Your task to perform on an android device: change the clock display to digital Image 0: 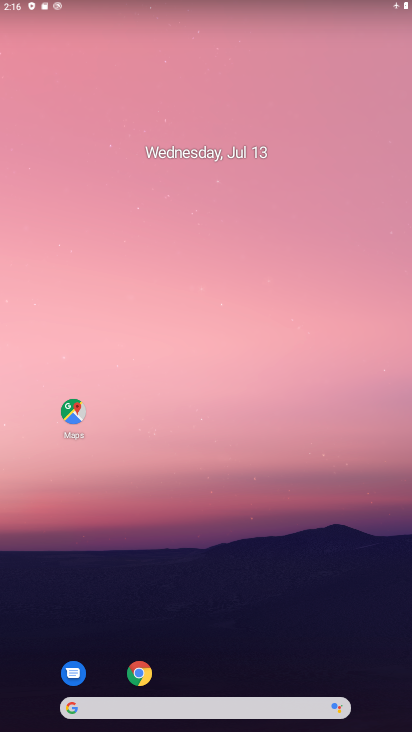
Step 0: drag from (193, 702) to (246, 187)
Your task to perform on an android device: change the clock display to digital Image 1: 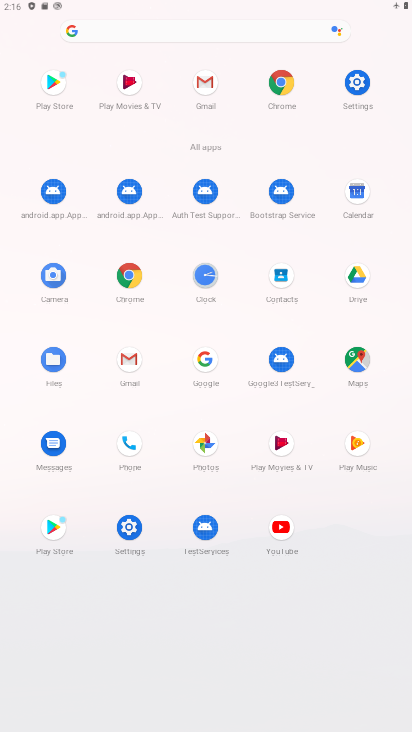
Step 1: click (204, 277)
Your task to perform on an android device: change the clock display to digital Image 2: 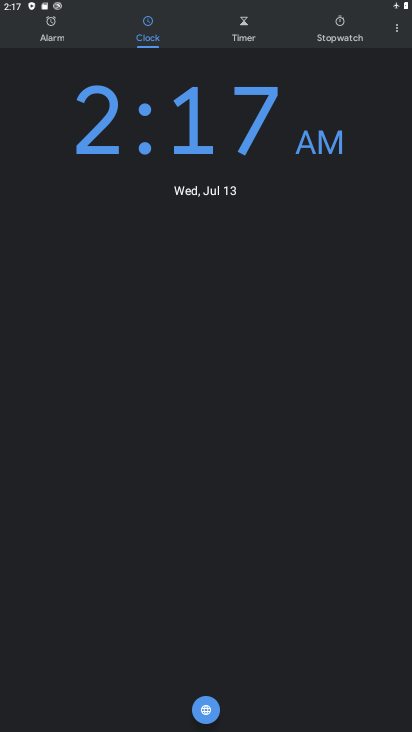
Step 2: click (396, 31)
Your task to perform on an android device: change the clock display to digital Image 3: 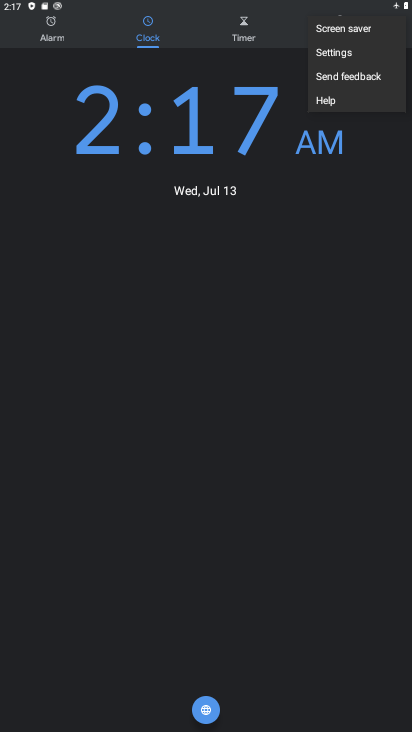
Step 3: click (347, 54)
Your task to perform on an android device: change the clock display to digital Image 4: 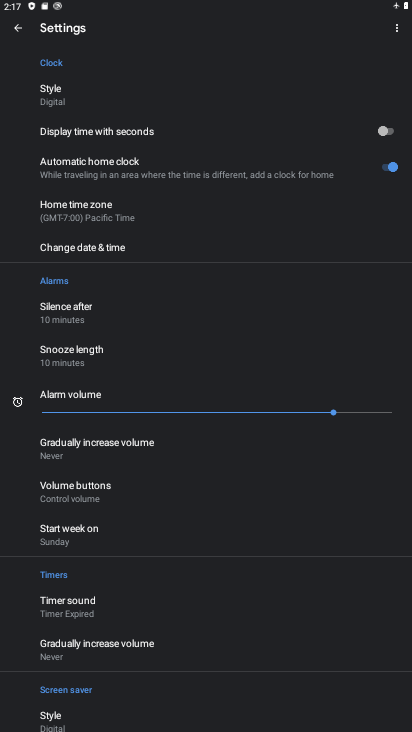
Step 4: click (61, 105)
Your task to perform on an android device: change the clock display to digital Image 5: 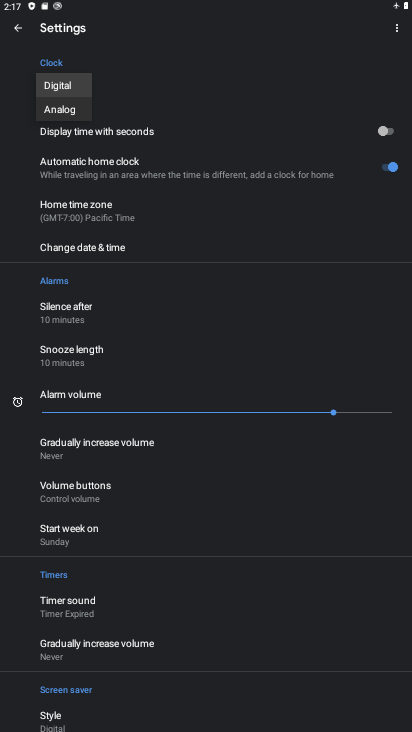
Step 5: click (71, 89)
Your task to perform on an android device: change the clock display to digital Image 6: 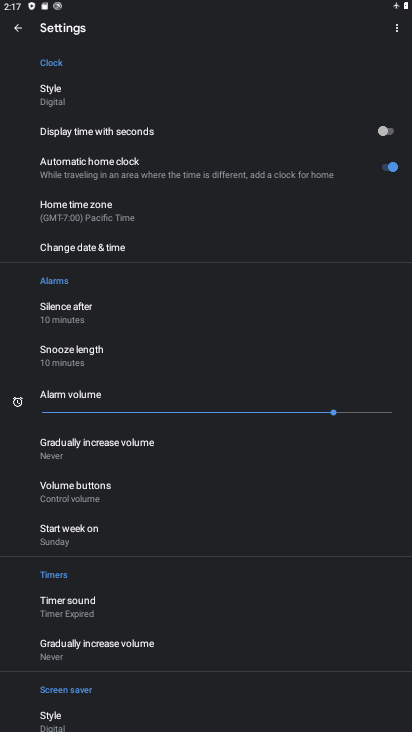
Step 6: task complete